Your task to perform on an android device: delete the emails in spam in the gmail app Image 0: 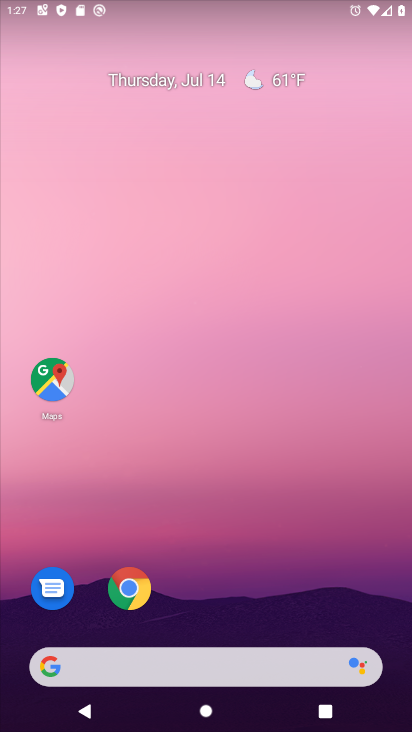
Step 0: drag from (239, 615) to (239, 255)
Your task to perform on an android device: delete the emails in spam in the gmail app Image 1: 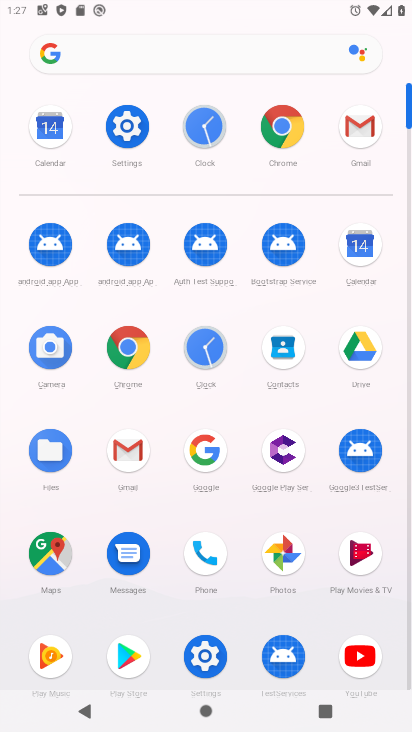
Step 1: click (357, 109)
Your task to perform on an android device: delete the emails in spam in the gmail app Image 2: 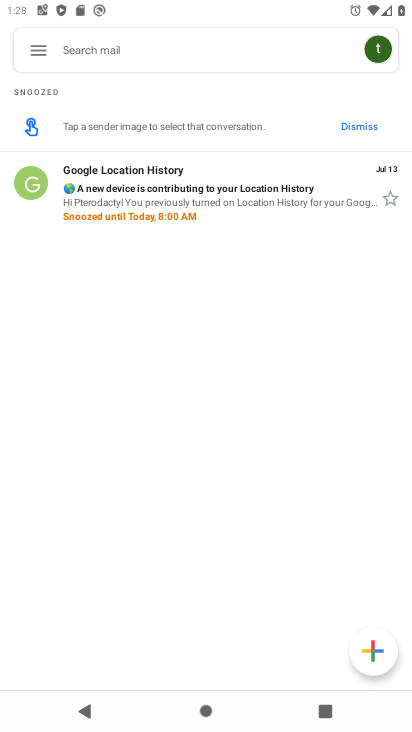
Step 2: click (87, 178)
Your task to perform on an android device: delete the emails in spam in the gmail app Image 3: 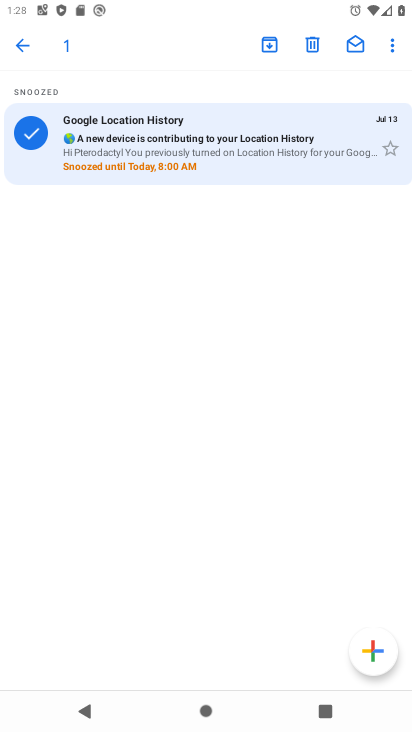
Step 3: click (21, 43)
Your task to perform on an android device: delete the emails in spam in the gmail app Image 4: 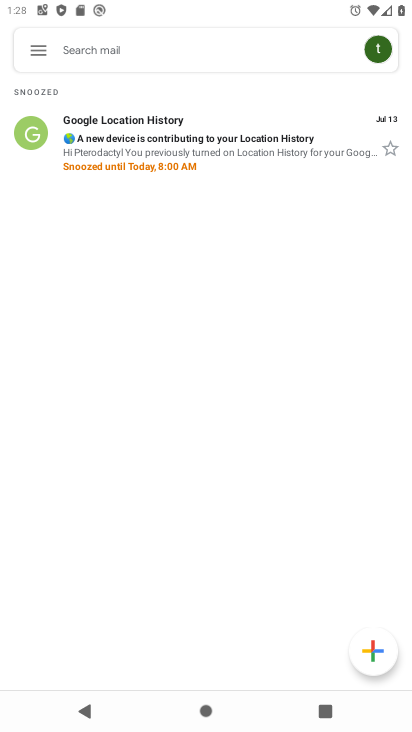
Step 4: click (30, 44)
Your task to perform on an android device: delete the emails in spam in the gmail app Image 5: 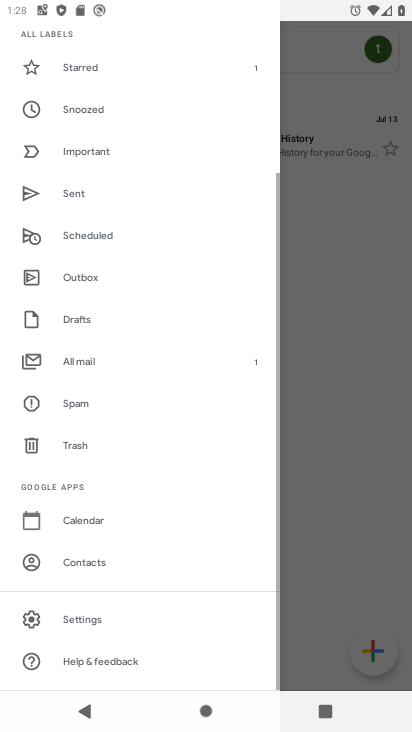
Step 5: click (53, 395)
Your task to perform on an android device: delete the emails in spam in the gmail app Image 6: 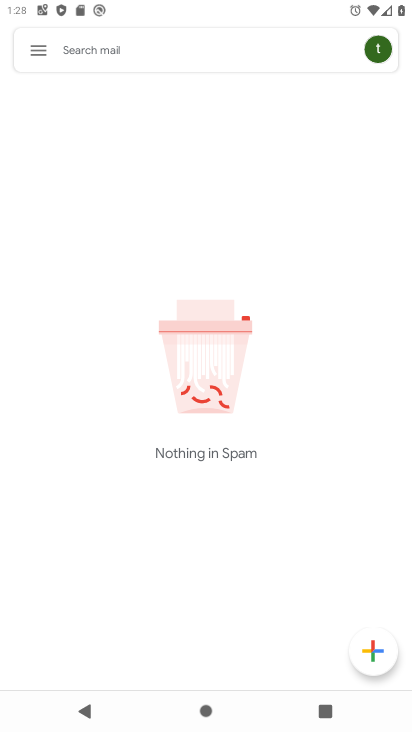
Step 6: task complete